Your task to perform on an android device: delete location history Image 0: 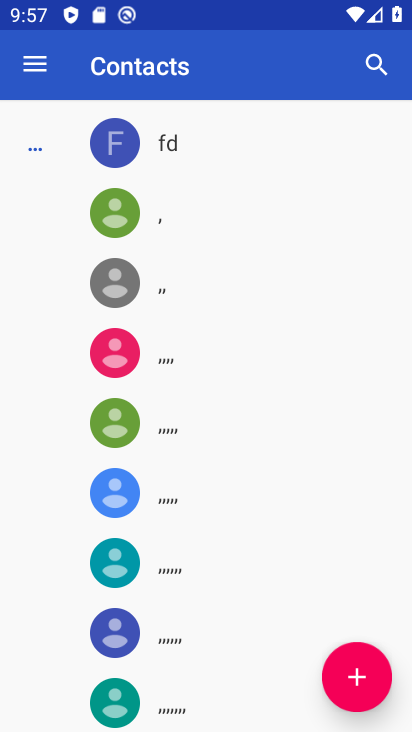
Step 0: press home button
Your task to perform on an android device: delete location history Image 1: 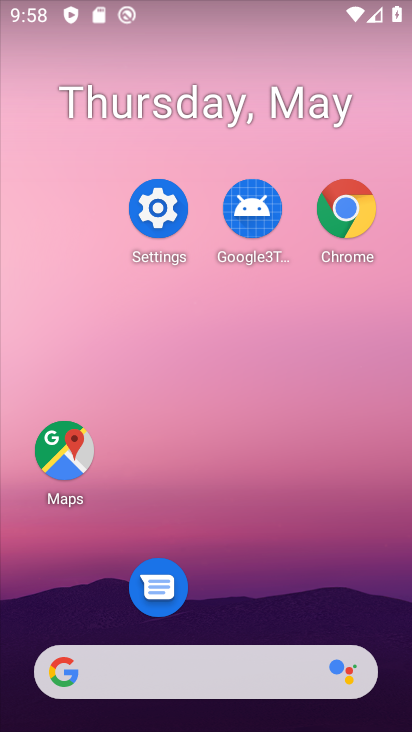
Step 1: click (53, 454)
Your task to perform on an android device: delete location history Image 2: 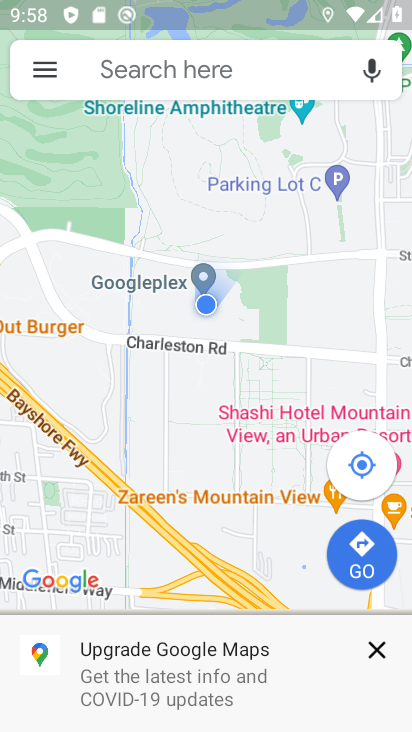
Step 2: click (44, 69)
Your task to perform on an android device: delete location history Image 3: 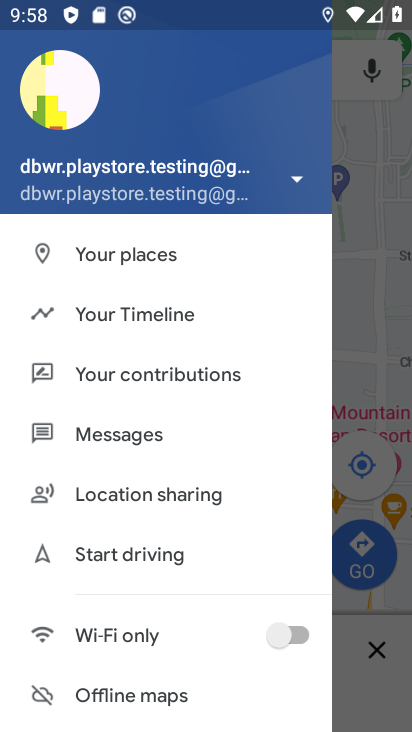
Step 3: click (147, 297)
Your task to perform on an android device: delete location history Image 4: 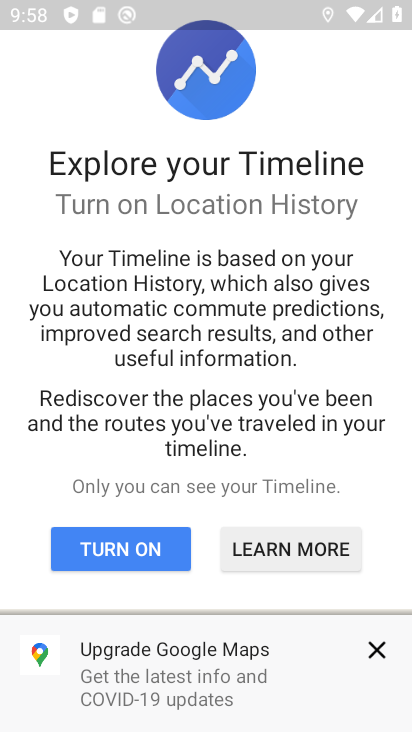
Step 4: click (370, 649)
Your task to perform on an android device: delete location history Image 5: 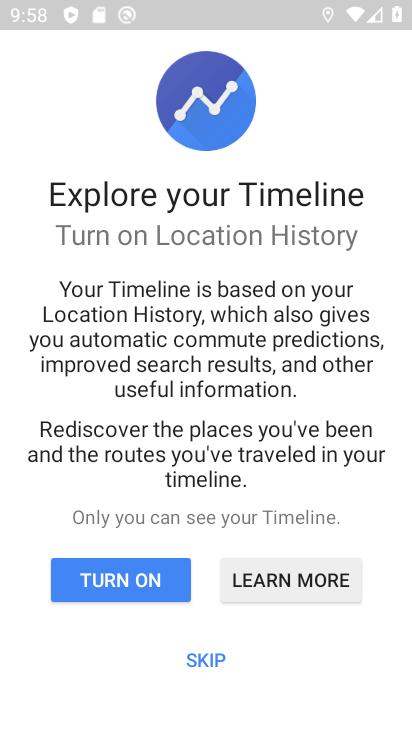
Step 5: click (217, 662)
Your task to perform on an android device: delete location history Image 6: 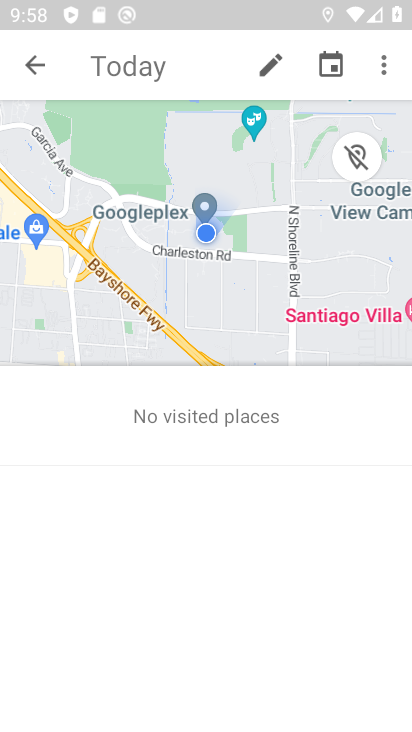
Step 6: click (386, 66)
Your task to perform on an android device: delete location history Image 7: 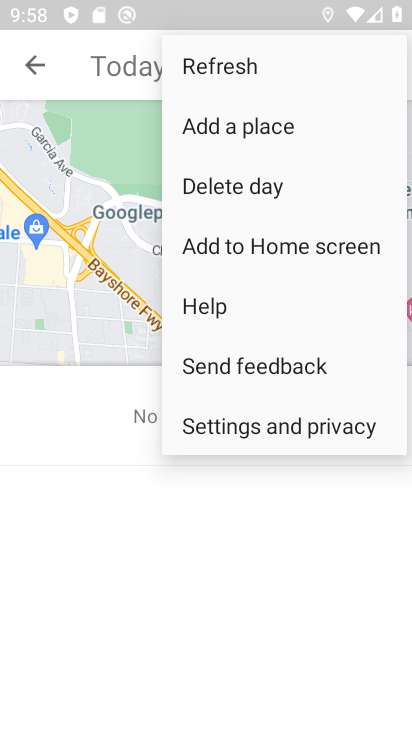
Step 7: click (280, 428)
Your task to perform on an android device: delete location history Image 8: 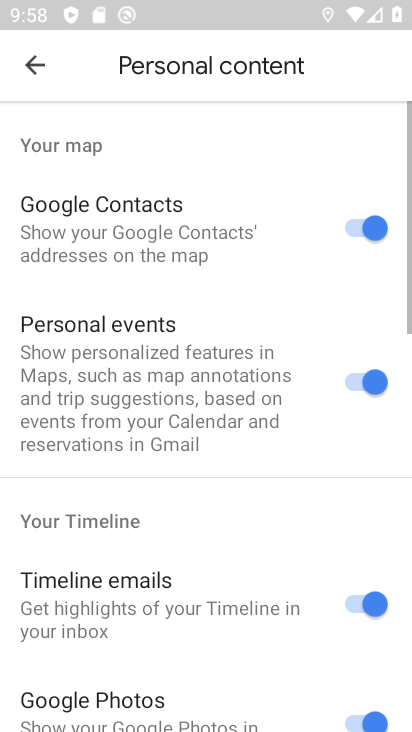
Step 8: drag from (185, 663) to (153, 106)
Your task to perform on an android device: delete location history Image 9: 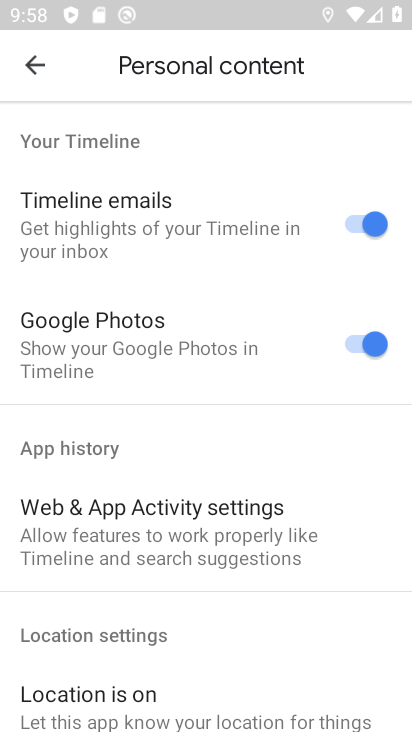
Step 9: drag from (154, 672) to (181, 211)
Your task to perform on an android device: delete location history Image 10: 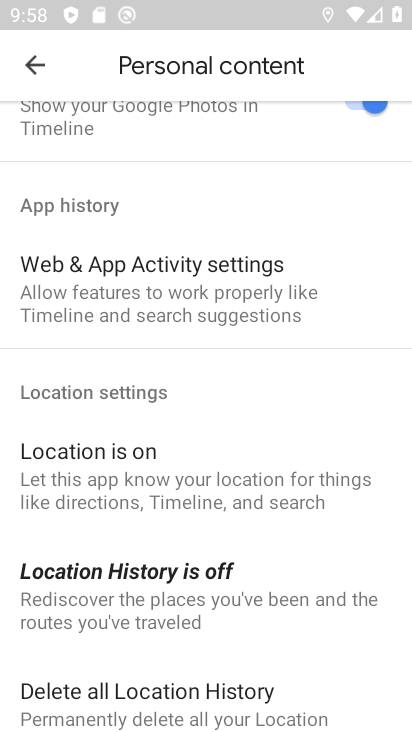
Step 10: drag from (185, 686) to (297, 280)
Your task to perform on an android device: delete location history Image 11: 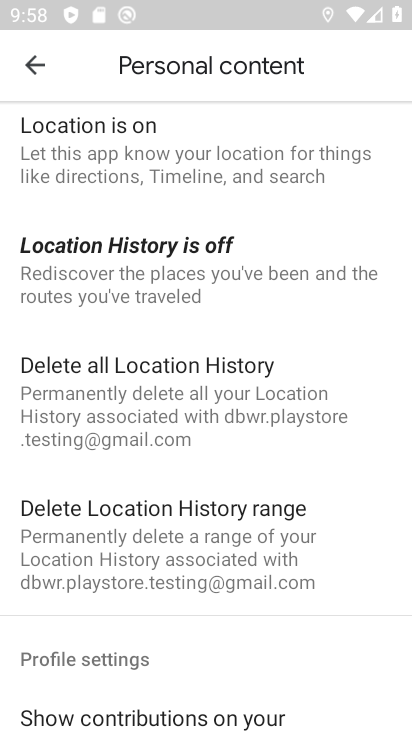
Step 11: click (191, 395)
Your task to perform on an android device: delete location history Image 12: 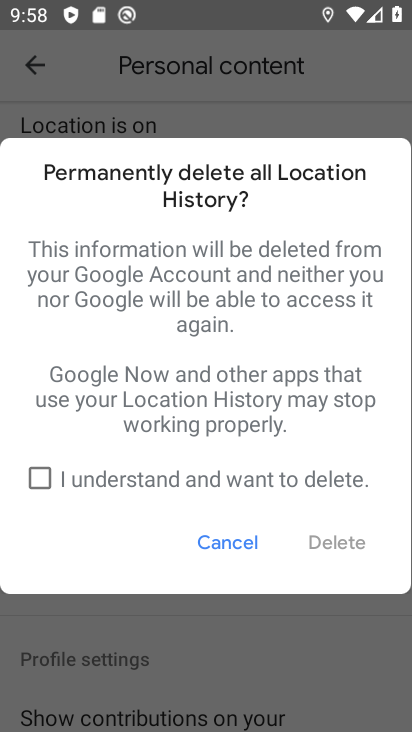
Step 12: click (40, 493)
Your task to perform on an android device: delete location history Image 13: 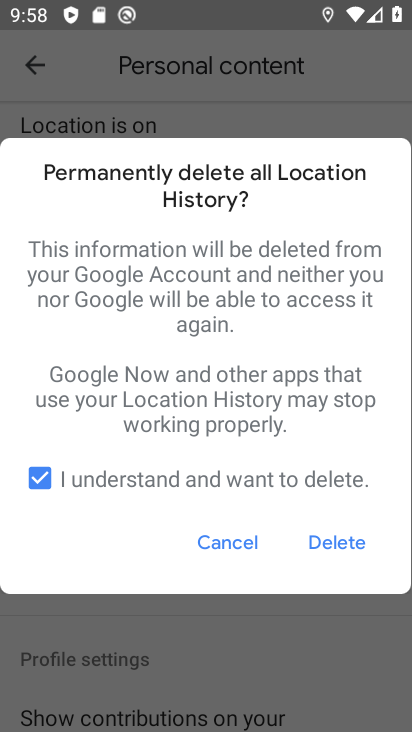
Step 13: click (336, 540)
Your task to perform on an android device: delete location history Image 14: 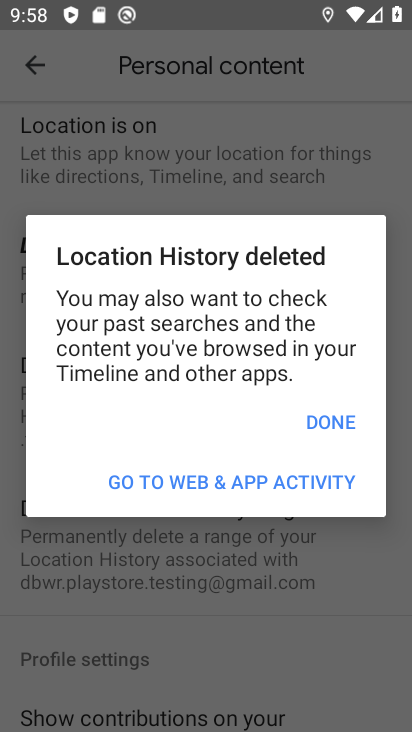
Step 14: click (339, 417)
Your task to perform on an android device: delete location history Image 15: 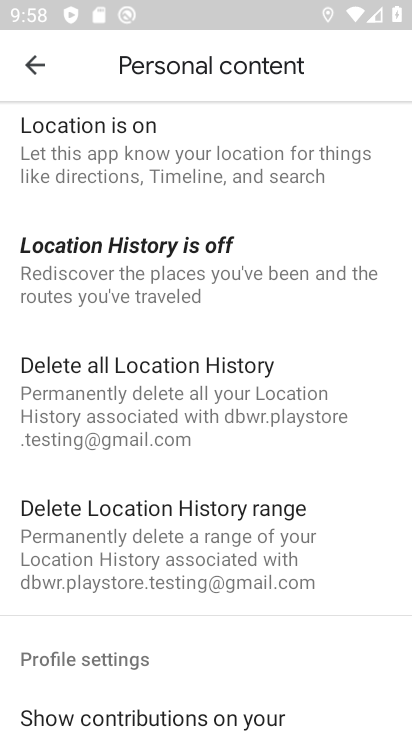
Step 15: task complete